Your task to perform on an android device: Turn on the flashlight Image 0: 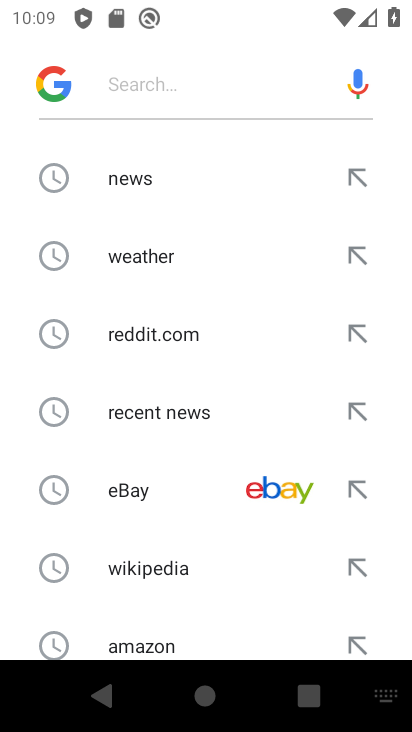
Step 0: press home button
Your task to perform on an android device: Turn on the flashlight Image 1: 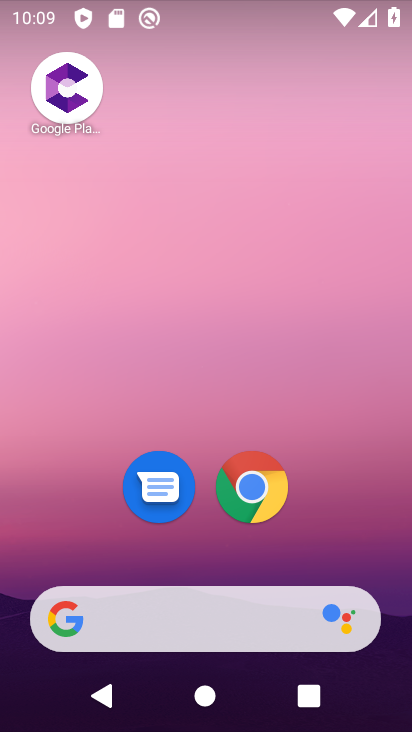
Step 1: task complete